Your task to perform on an android device: Turn off the flashlight Image 0: 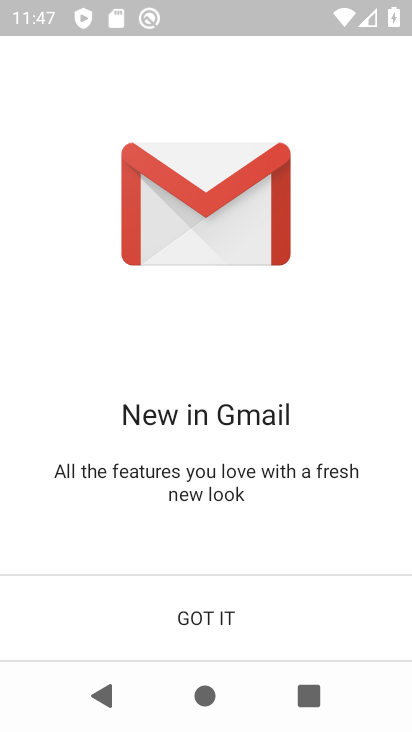
Step 0: press home button
Your task to perform on an android device: Turn off the flashlight Image 1: 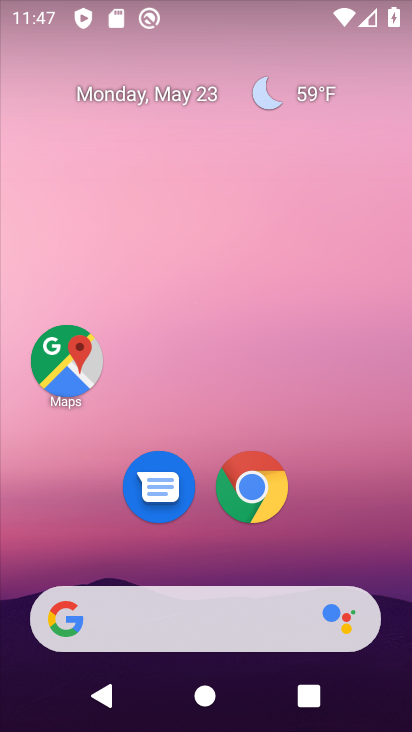
Step 1: drag from (197, 554) to (141, 36)
Your task to perform on an android device: Turn off the flashlight Image 2: 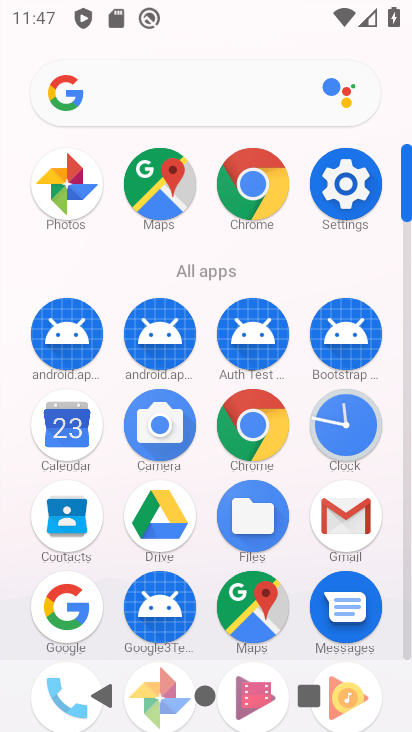
Step 2: click (346, 183)
Your task to perform on an android device: Turn off the flashlight Image 3: 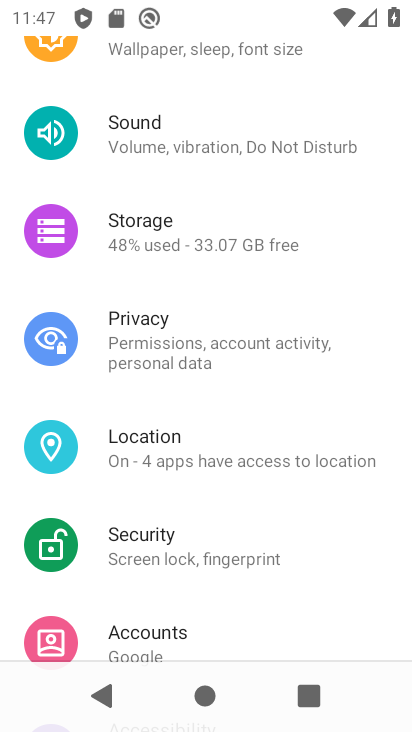
Step 3: task complete